Your task to perform on an android device: Add acer predator to the cart on ebay.com, then select checkout. Image 0: 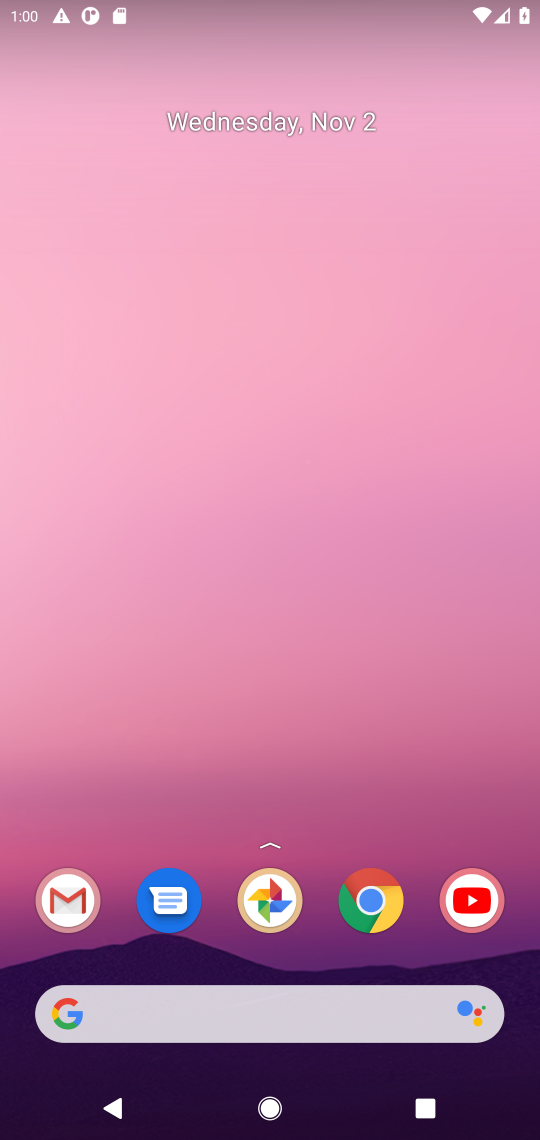
Step 0: click (371, 922)
Your task to perform on an android device: Add acer predator to the cart on ebay.com, then select checkout. Image 1: 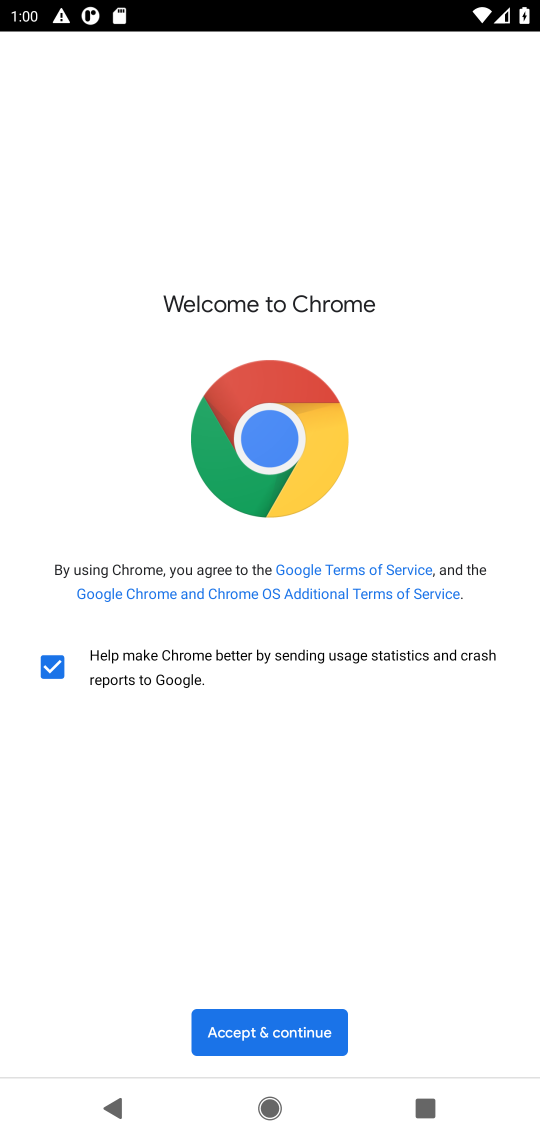
Step 1: click (235, 1033)
Your task to perform on an android device: Add acer predator to the cart on ebay.com, then select checkout. Image 2: 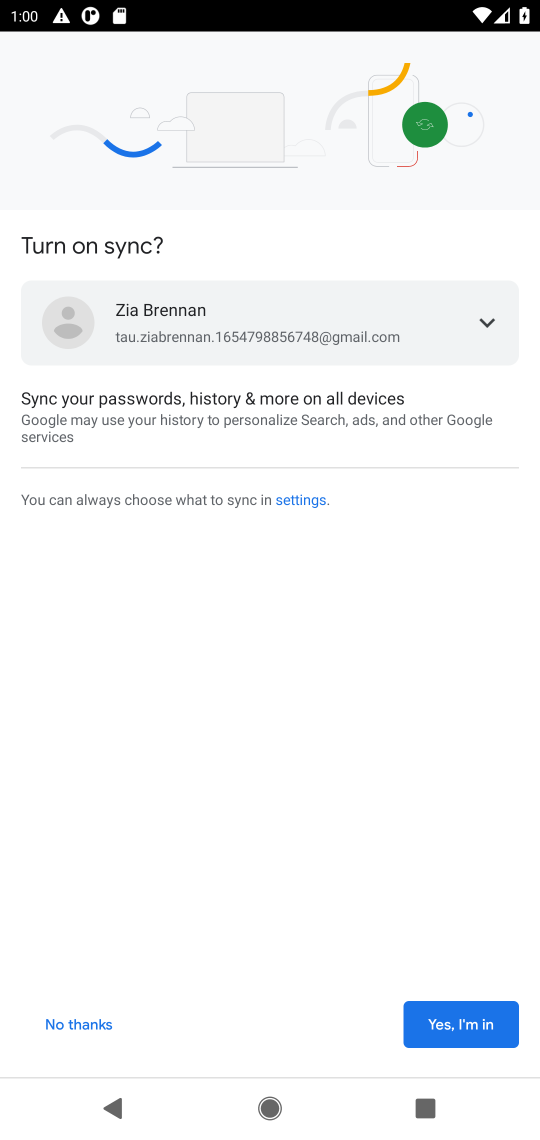
Step 2: click (461, 1028)
Your task to perform on an android device: Add acer predator to the cart on ebay.com, then select checkout. Image 3: 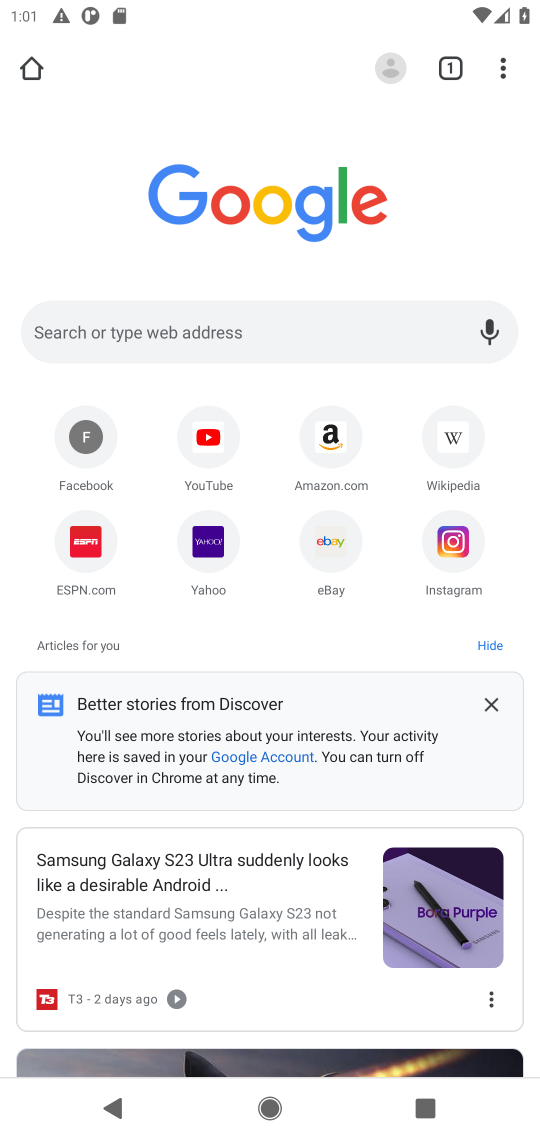
Step 3: click (144, 327)
Your task to perform on an android device: Add acer predator to the cart on ebay.com, then select checkout. Image 4: 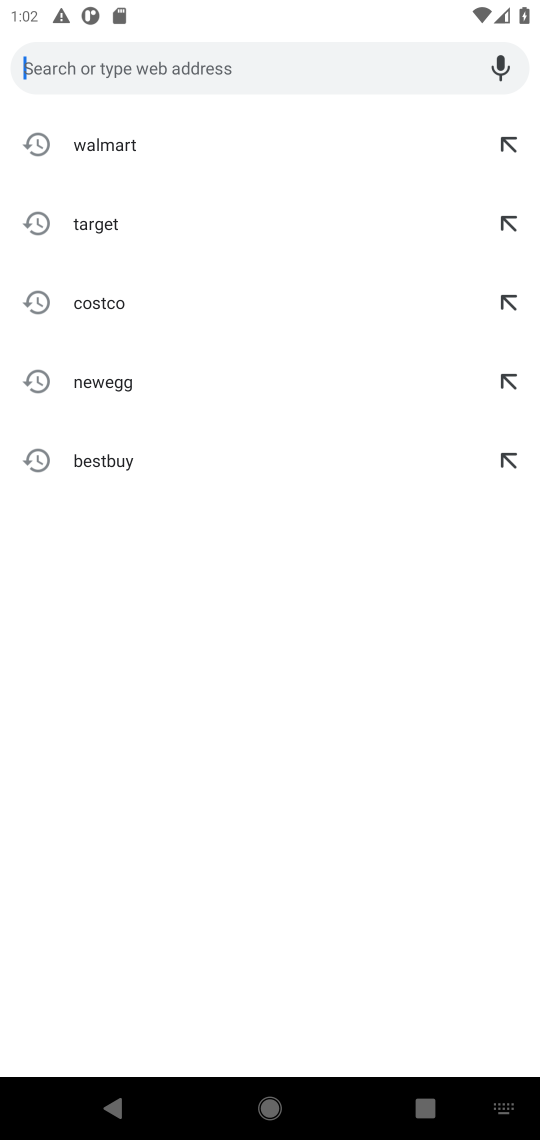
Step 4: type "ebay.com"
Your task to perform on an android device: Add acer predator to the cart on ebay.com, then select checkout. Image 5: 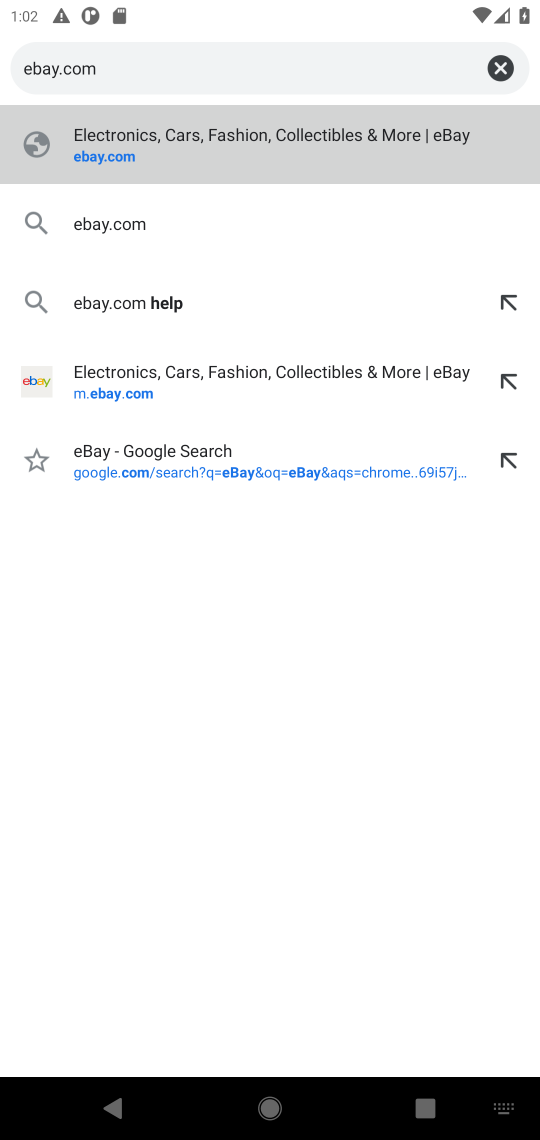
Step 5: click (109, 402)
Your task to perform on an android device: Add acer predator to the cart on ebay.com, then select checkout. Image 6: 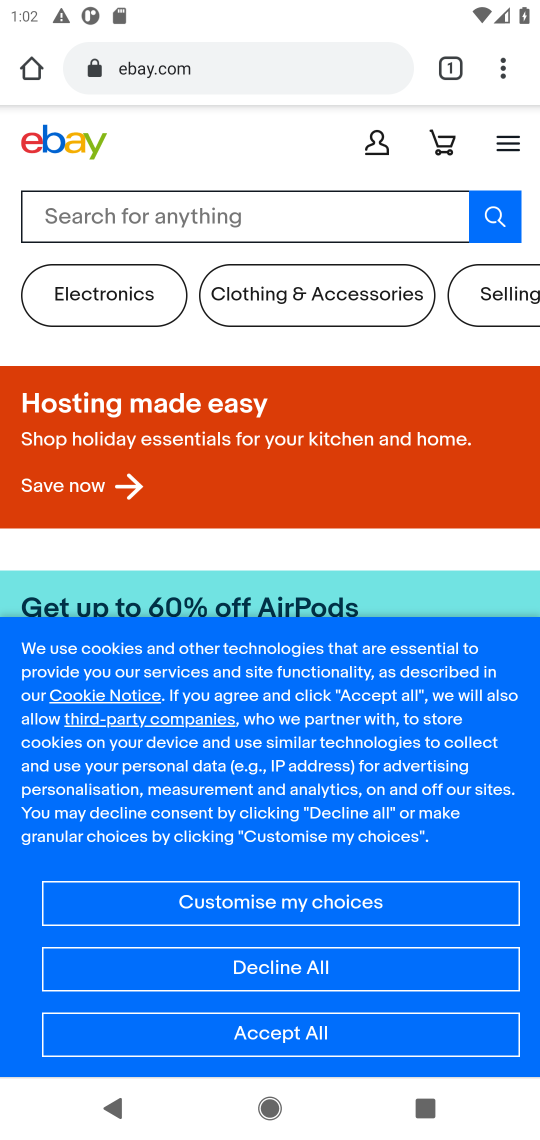
Step 6: click (177, 214)
Your task to perform on an android device: Add acer predator to the cart on ebay.com, then select checkout. Image 7: 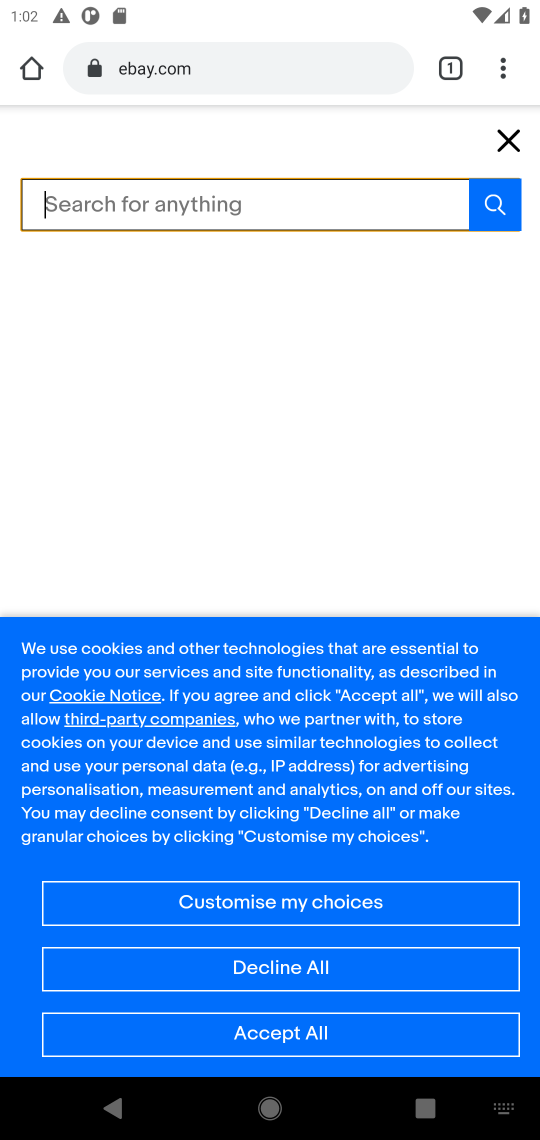
Step 7: type "acer predator"
Your task to perform on an android device: Add acer predator to the cart on ebay.com, then select checkout. Image 8: 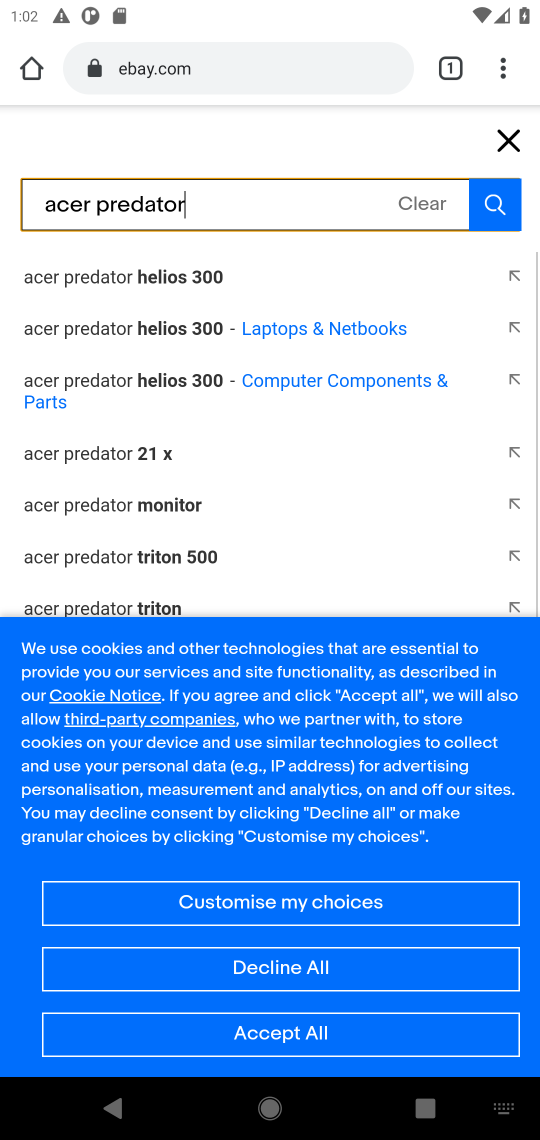
Step 8: type ""
Your task to perform on an android device: Add acer predator to the cart on ebay.com, then select checkout. Image 9: 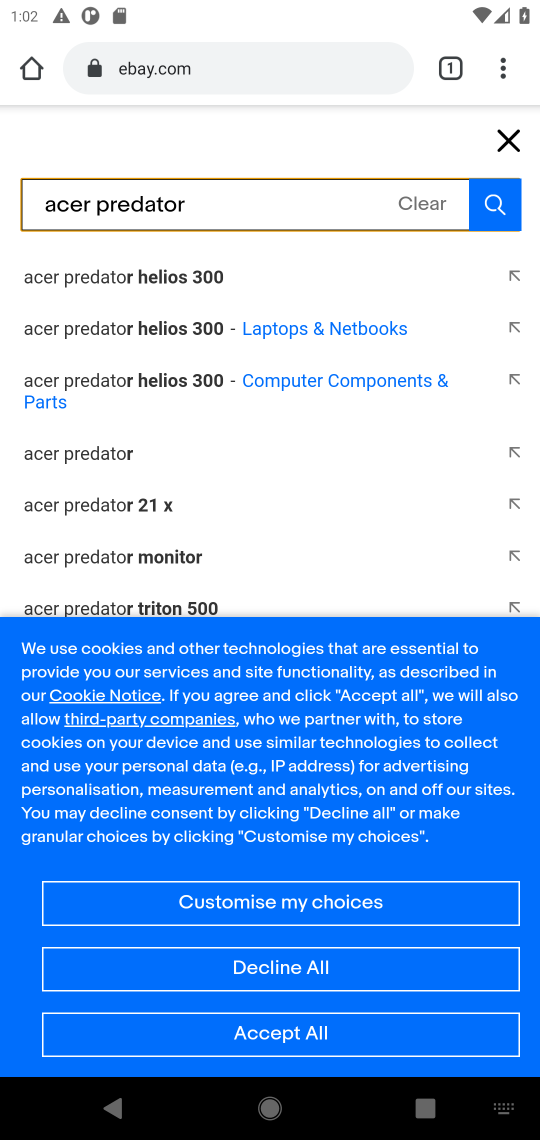
Step 9: click (112, 278)
Your task to perform on an android device: Add acer predator to the cart on ebay.com, then select checkout. Image 10: 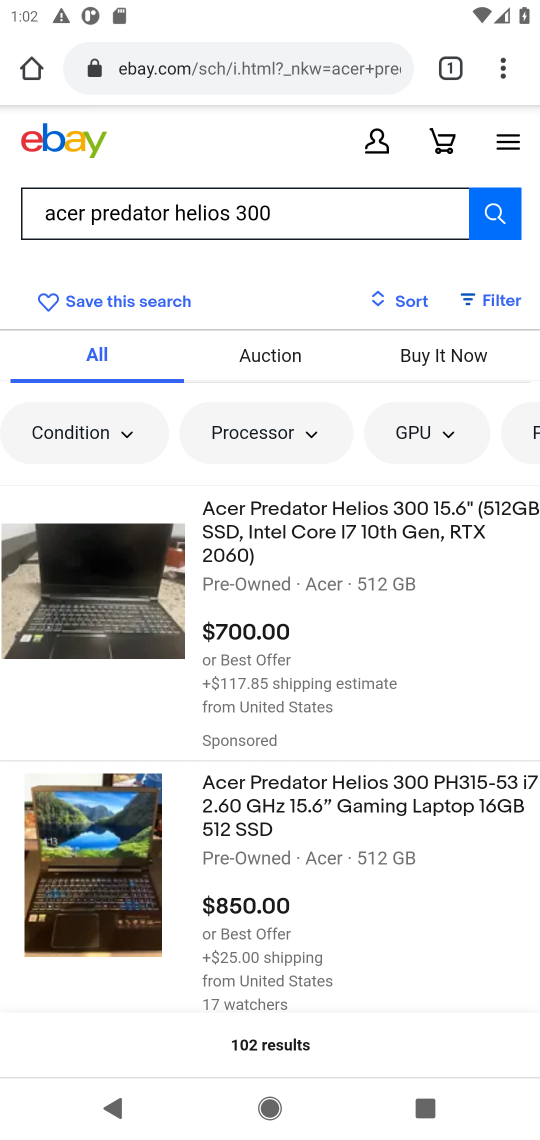
Step 10: drag from (325, 888) to (462, 250)
Your task to perform on an android device: Add acer predator to the cart on ebay.com, then select checkout. Image 11: 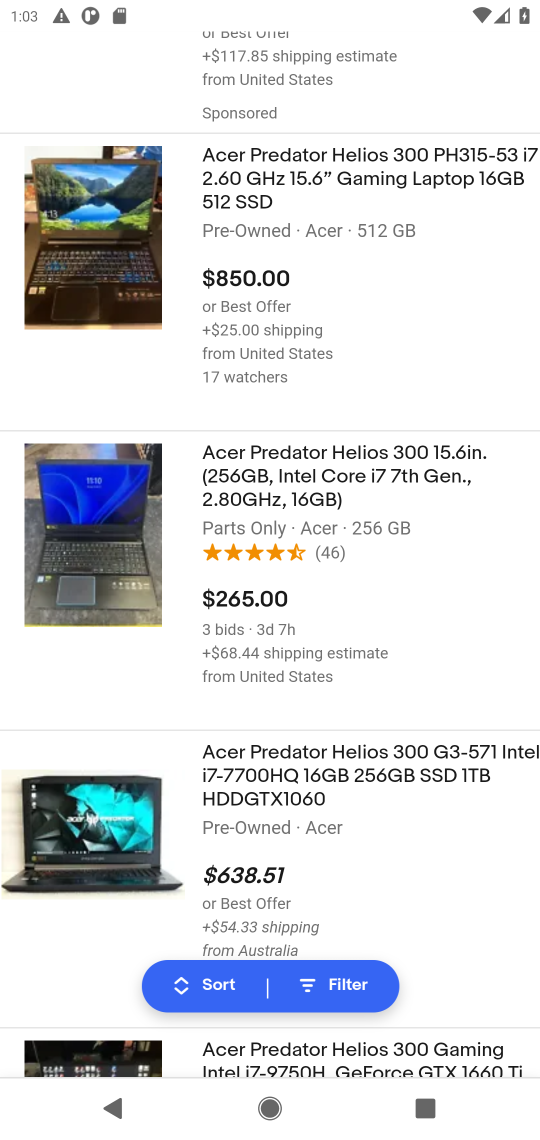
Step 11: drag from (282, 705) to (346, 295)
Your task to perform on an android device: Add acer predator to the cart on ebay.com, then select checkout. Image 12: 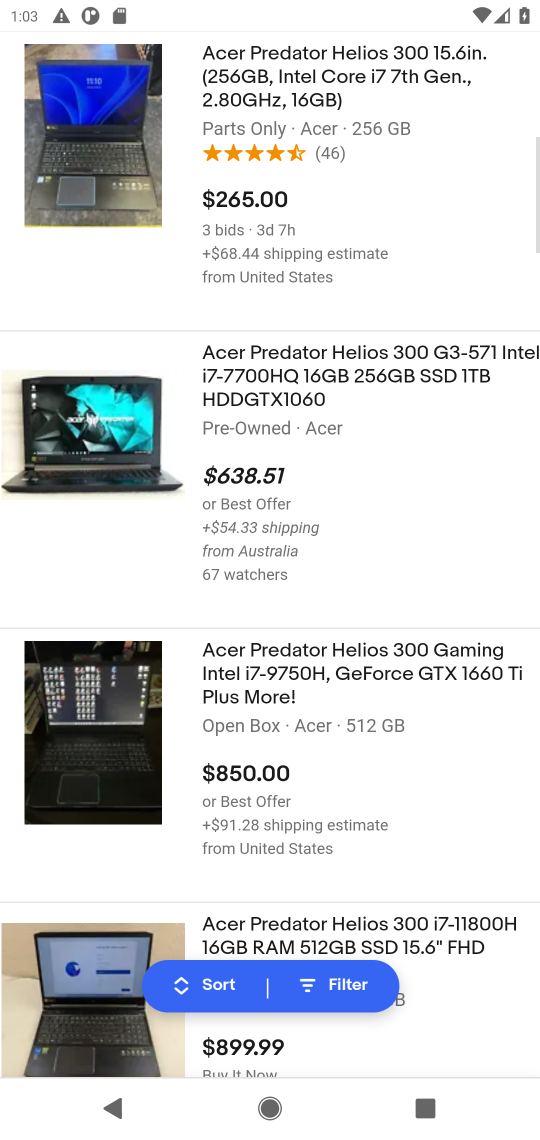
Step 12: drag from (220, 844) to (295, 345)
Your task to perform on an android device: Add acer predator to the cart on ebay.com, then select checkout. Image 13: 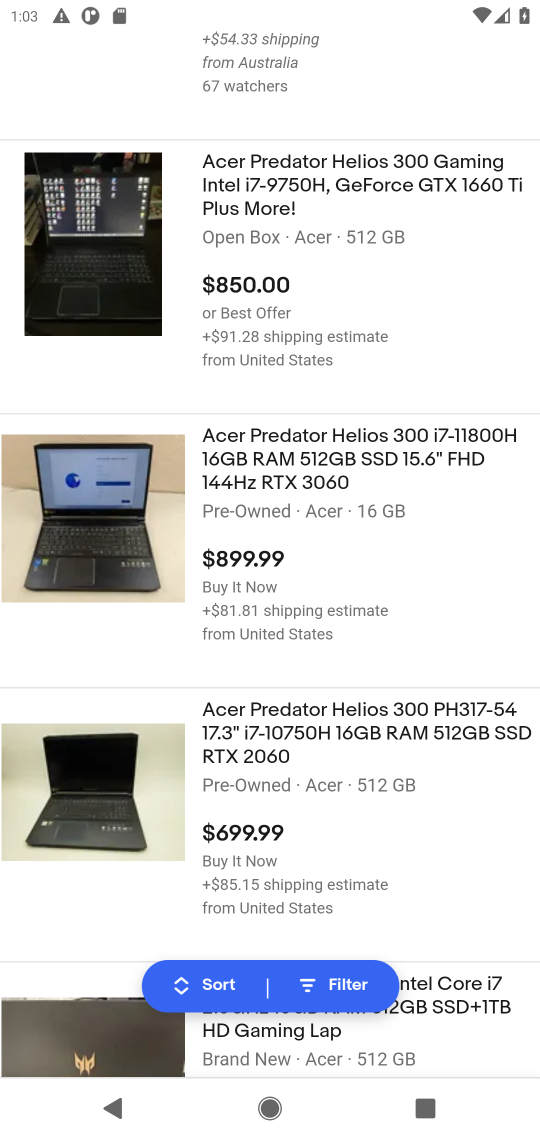
Step 13: drag from (223, 815) to (394, 344)
Your task to perform on an android device: Add acer predator to the cart on ebay.com, then select checkout. Image 14: 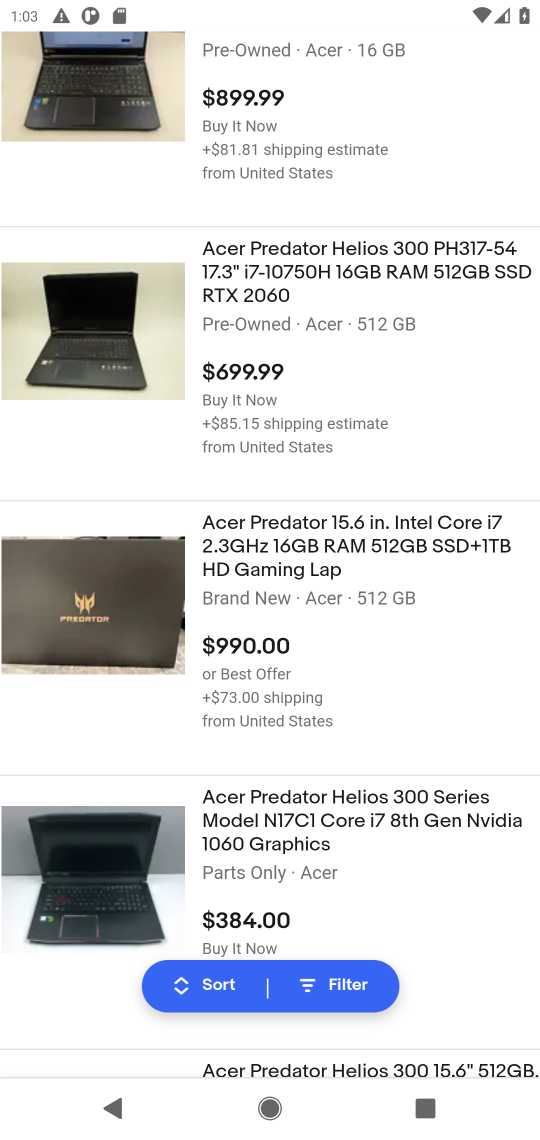
Step 14: drag from (401, 561) to (469, 324)
Your task to perform on an android device: Add acer predator to the cart on ebay.com, then select checkout. Image 15: 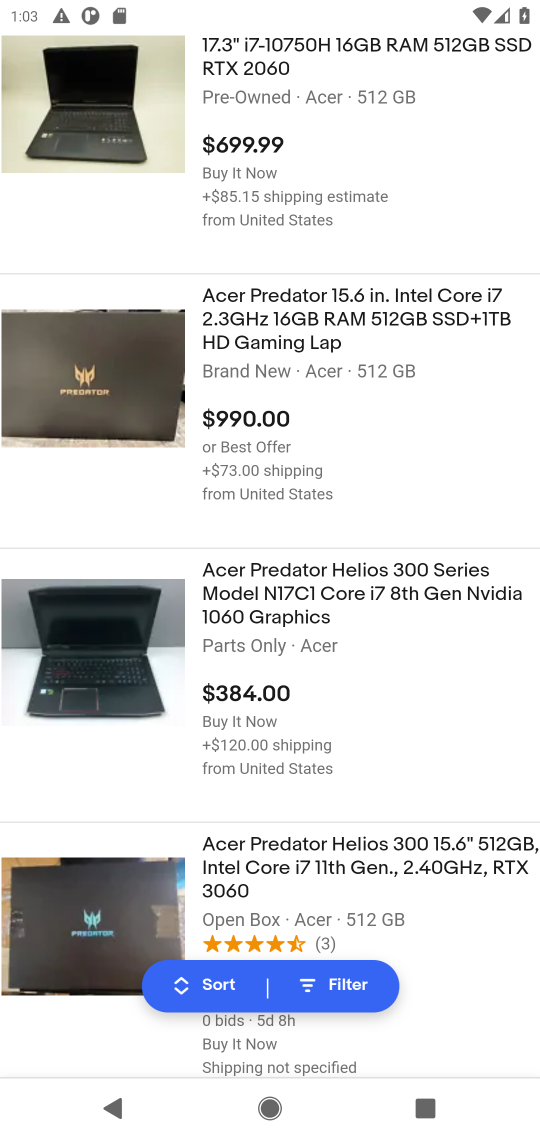
Step 15: drag from (375, 818) to (483, 331)
Your task to perform on an android device: Add acer predator to the cart on ebay.com, then select checkout. Image 16: 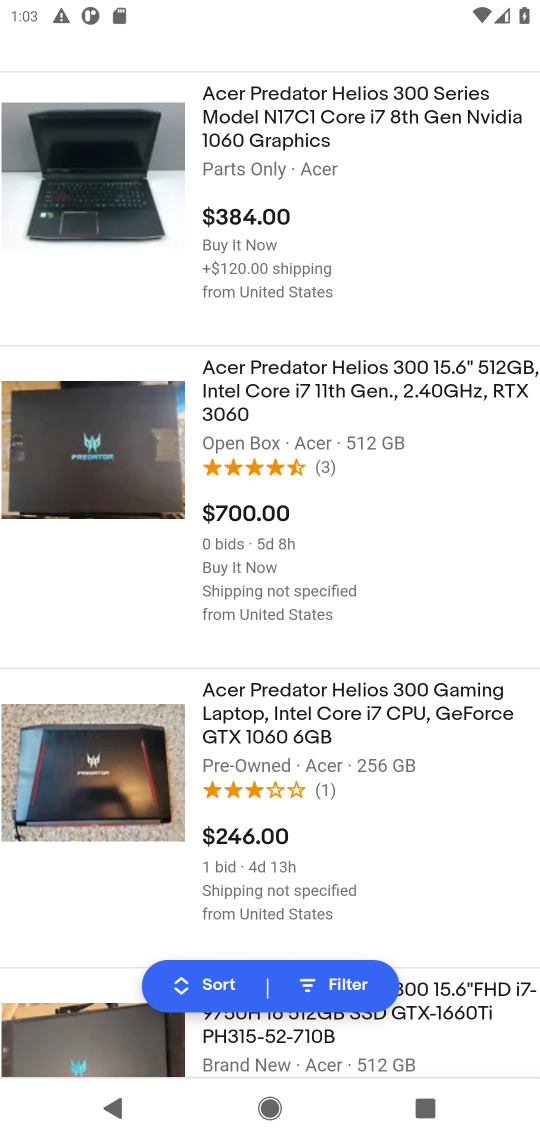
Step 16: click (126, 423)
Your task to perform on an android device: Add acer predator to the cart on ebay.com, then select checkout. Image 17: 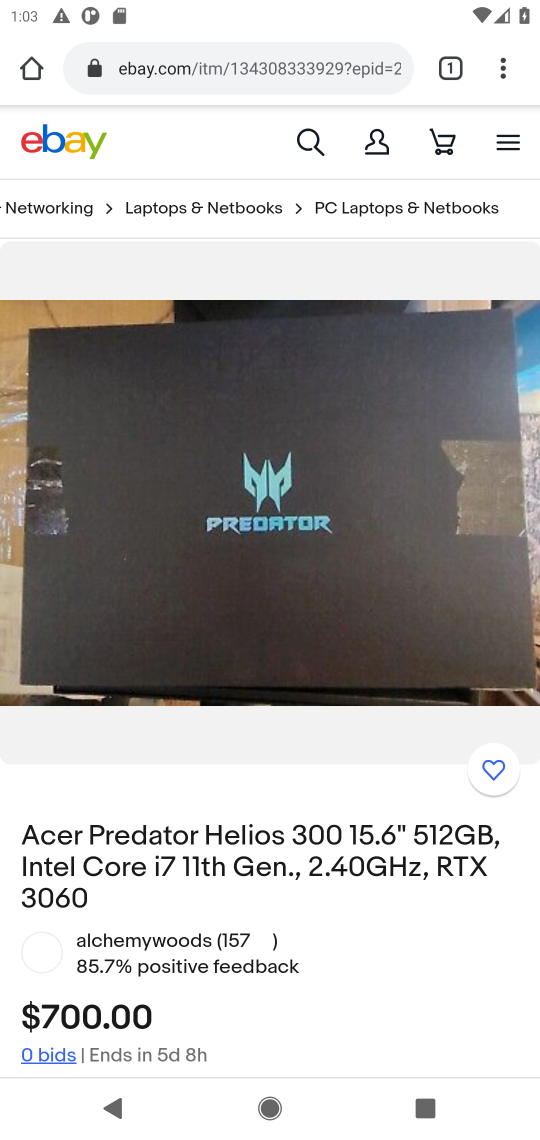
Step 17: drag from (318, 876) to (353, 194)
Your task to perform on an android device: Add acer predator to the cart on ebay.com, then select checkout. Image 18: 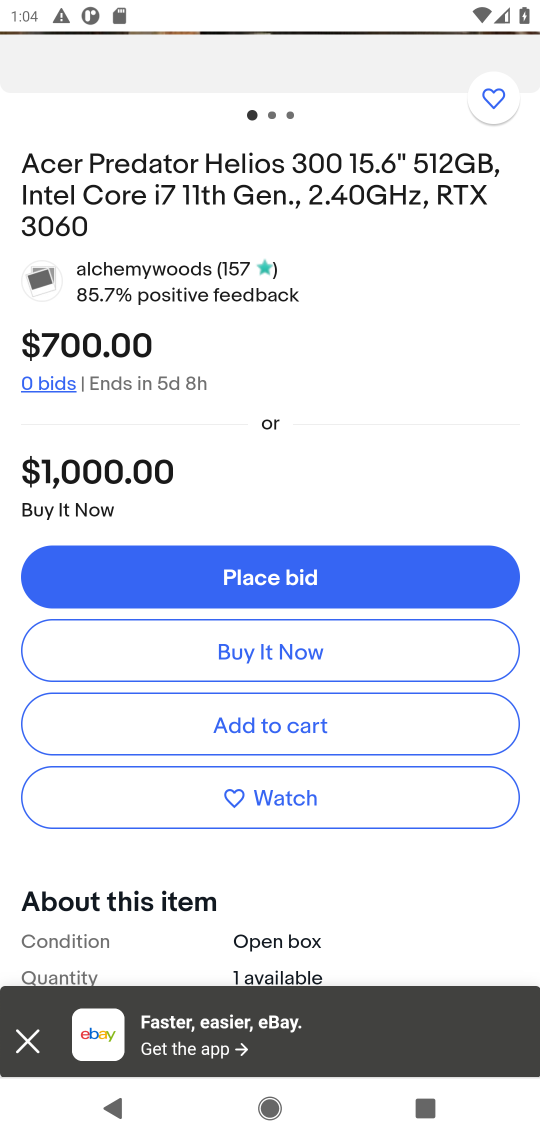
Step 18: click (30, 1041)
Your task to perform on an android device: Add acer predator to the cart on ebay.com, then select checkout. Image 19: 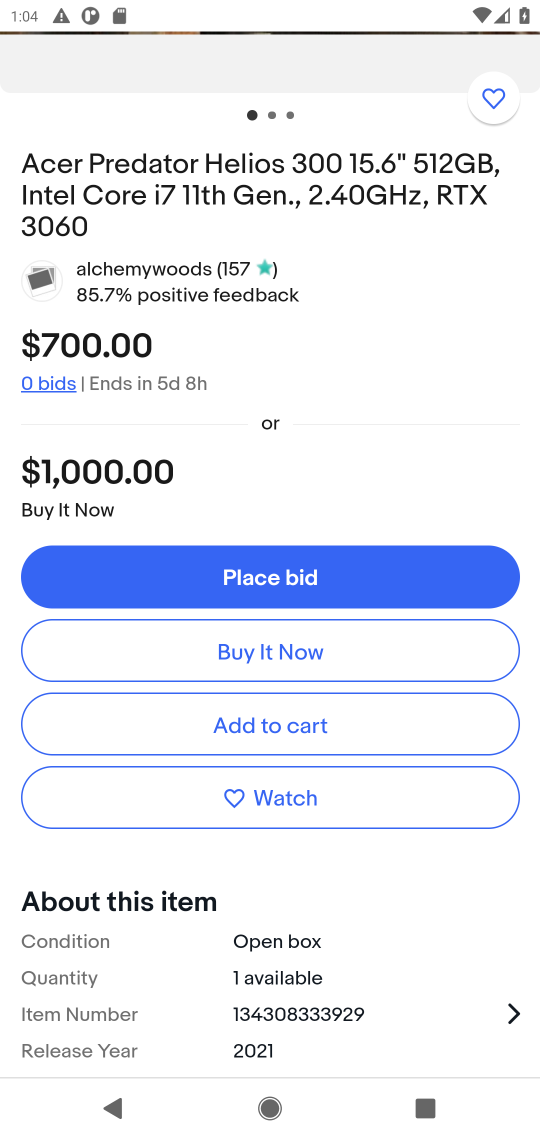
Step 19: click (290, 737)
Your task to perform on an android device: Add acer predator to the cart on ebay.com, then select checkout. Image 20: 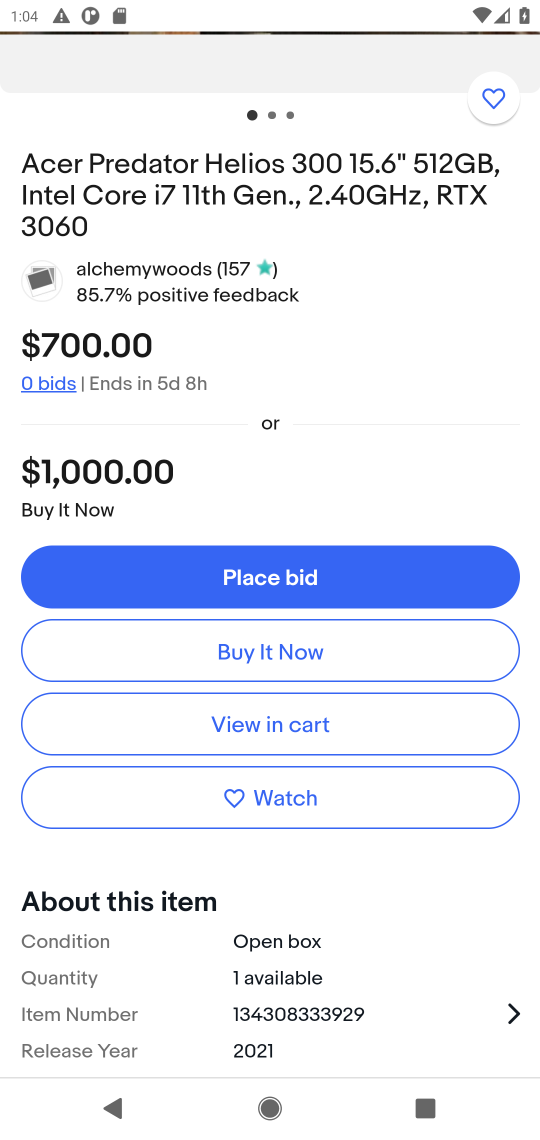
Step 20: click (294, 734)
Your task to perform on an android device: Add acer predator to the cart on ebay.com, then select checkout. Image 21: 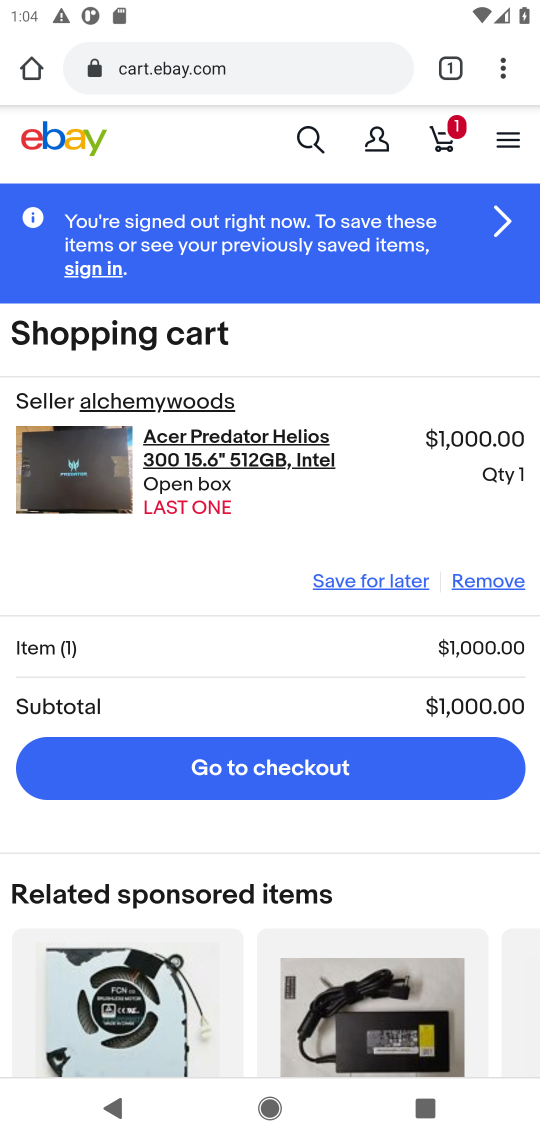
Step 21: click (302, 775)
Your task to perform on an android device: Add acer predator to the cart on ebay.com, then select checkout. Image 22: 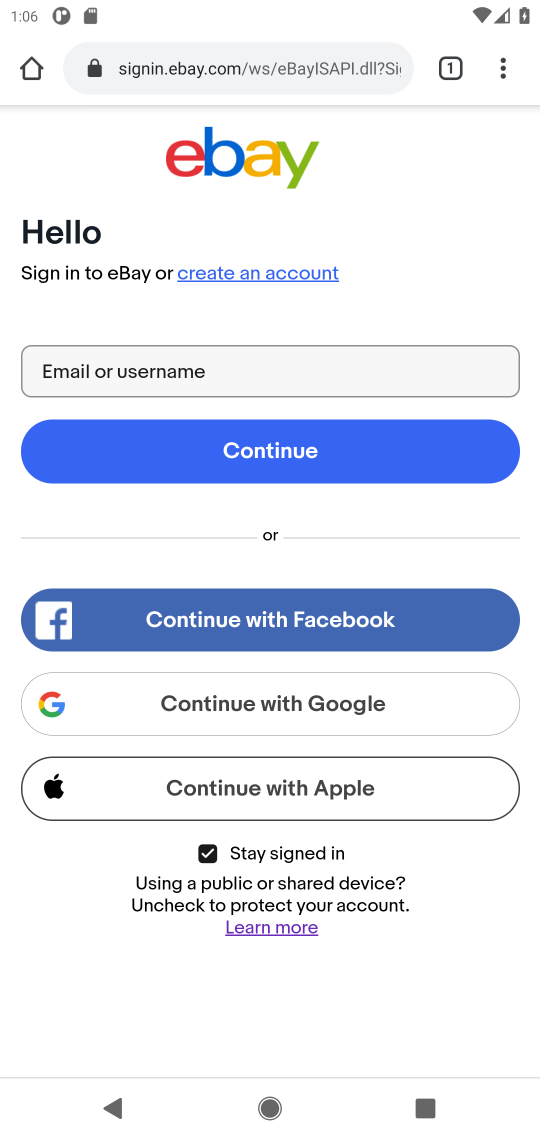
Step 22: task complete